Your task to perform on an android device: change the clock display to digital Image 0: 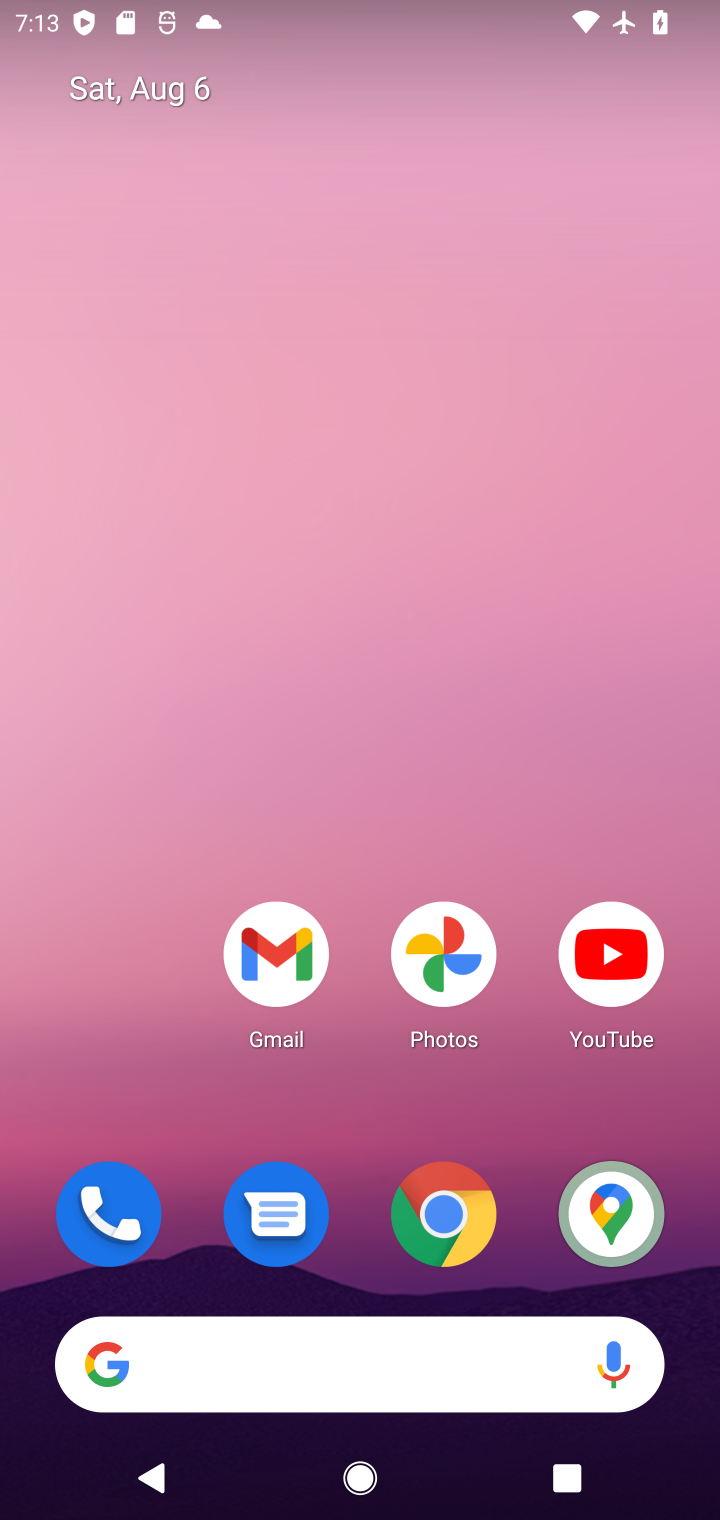
Step 0: drag from (374, 1093) to (388, 0)
Your task to perform on an android device: change the clock display to digital Image 1: 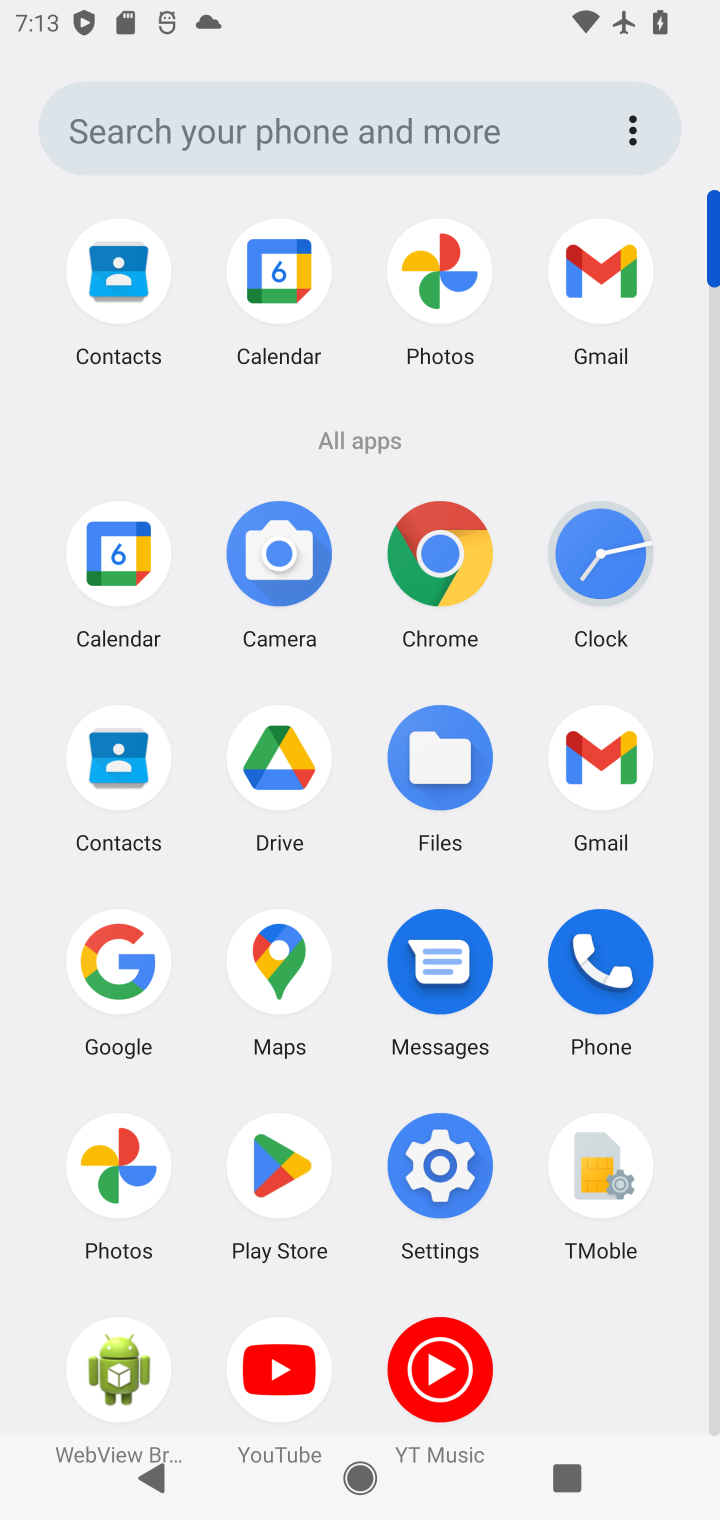
Step 1: click (626, 550)
Your task to perform on an android device: change the clock display to digital Image 2: 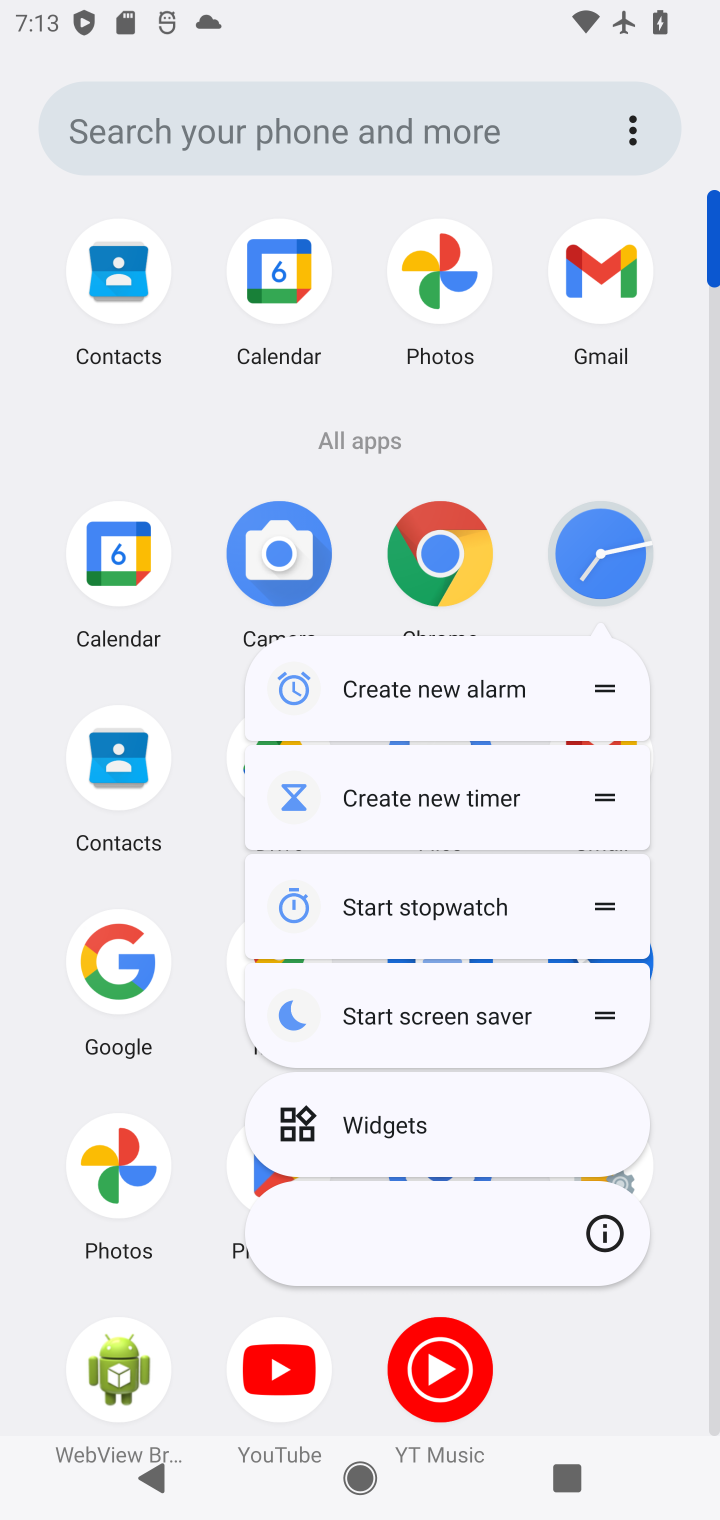
Step 2: click (618, 563)
Your task to perform on an android device: change the clock display to digital Image 3: 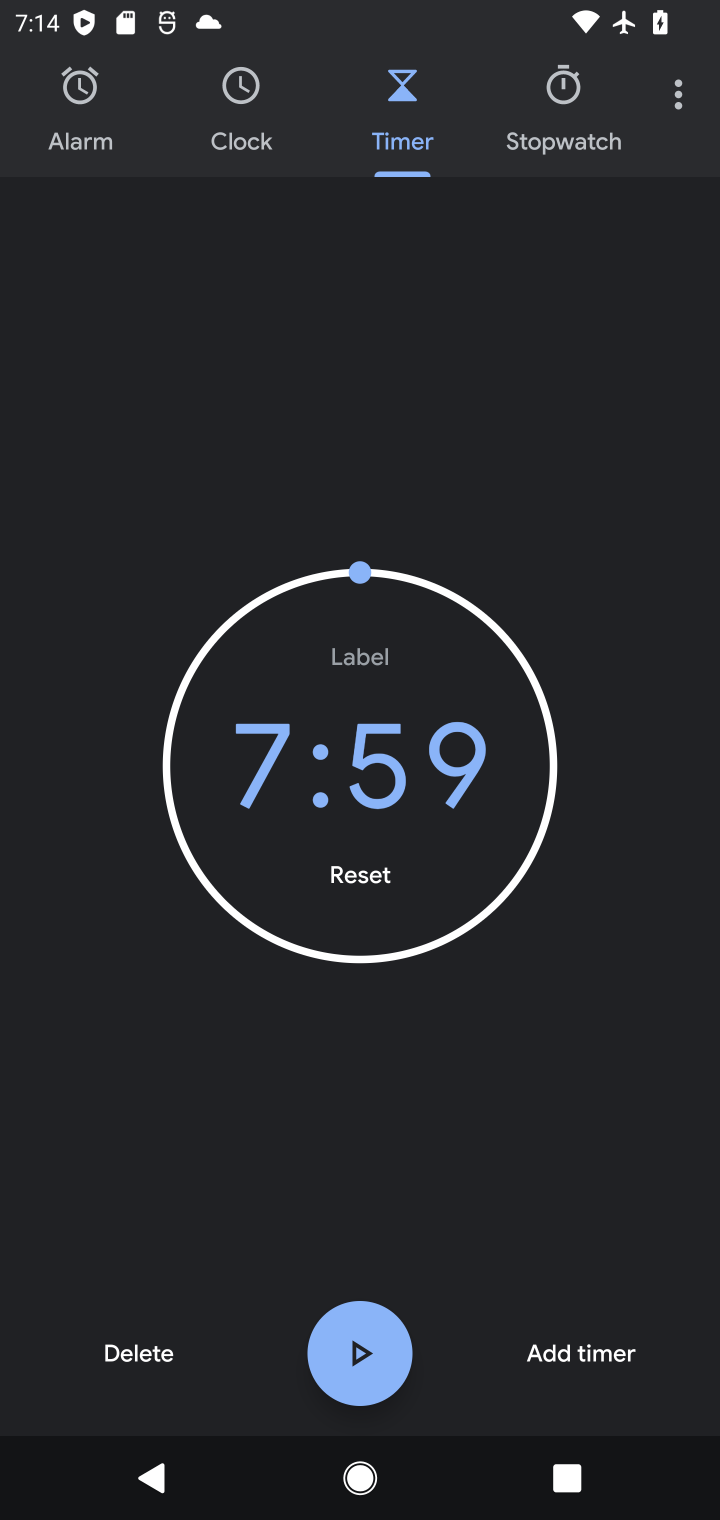
Step 3: click (671, 93)
Your task to perform on an android device: change the clock display to digital Image 4: 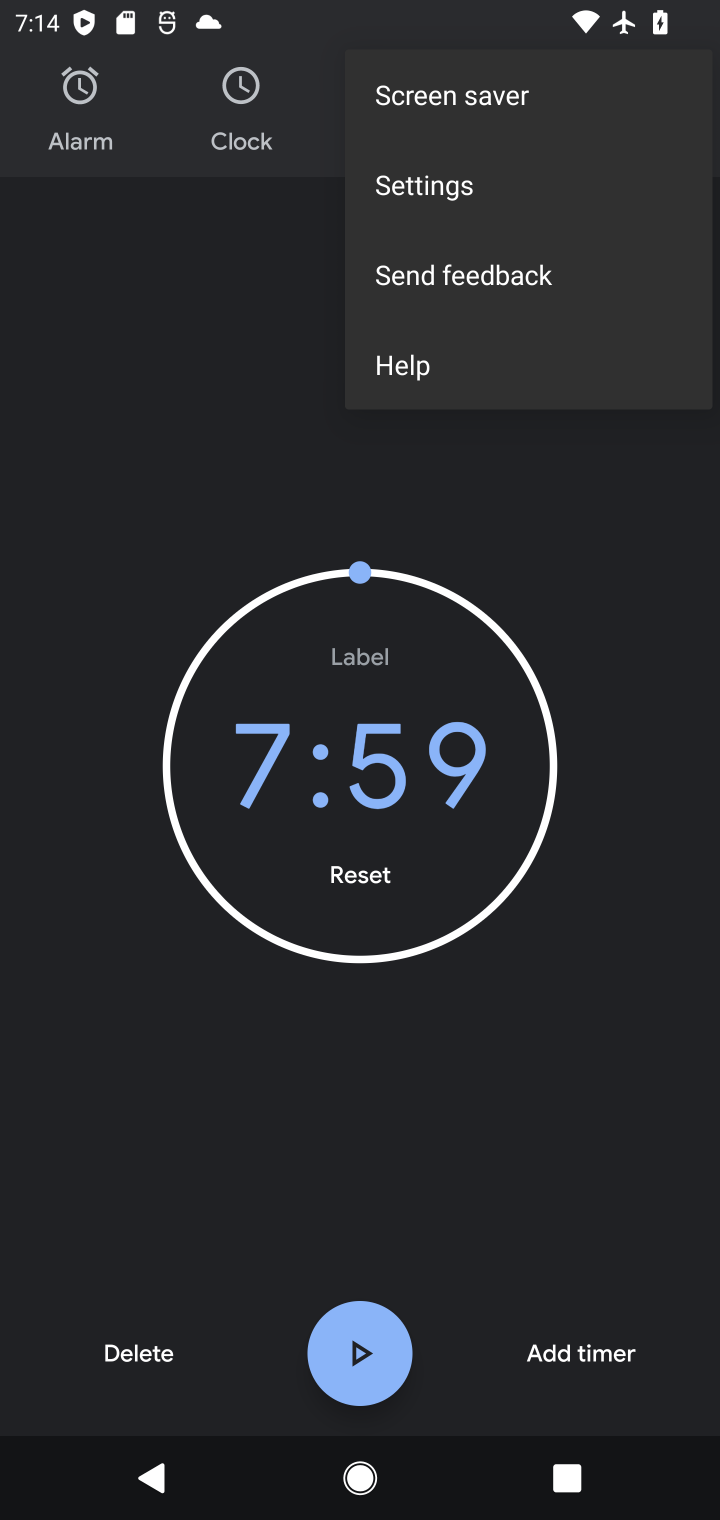
Step 4: click (422, 197)
Your task to perform on an android device: change the clock display to digital Image 5: 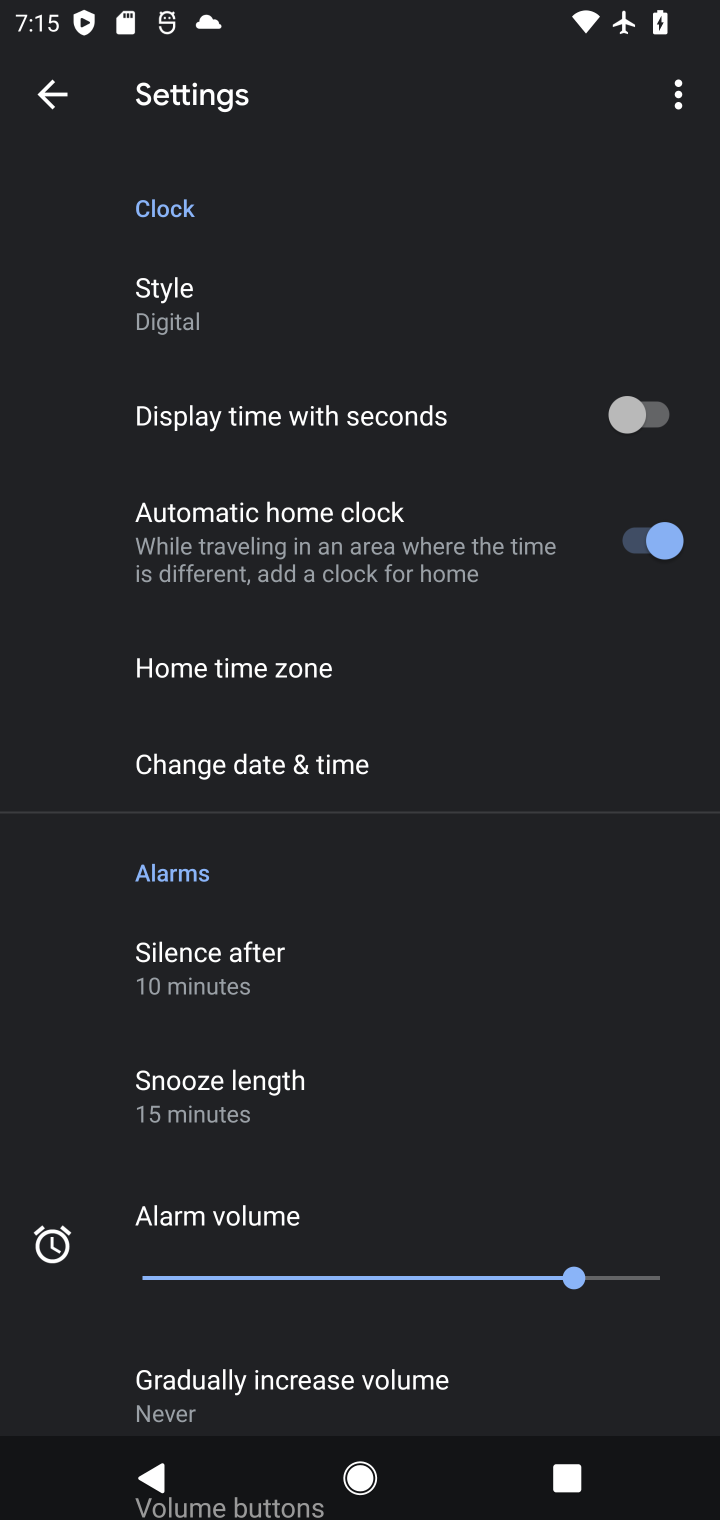
Step 5: click (194, 313)
Your task to perform on an android device: change the clock display to digital Image 6: 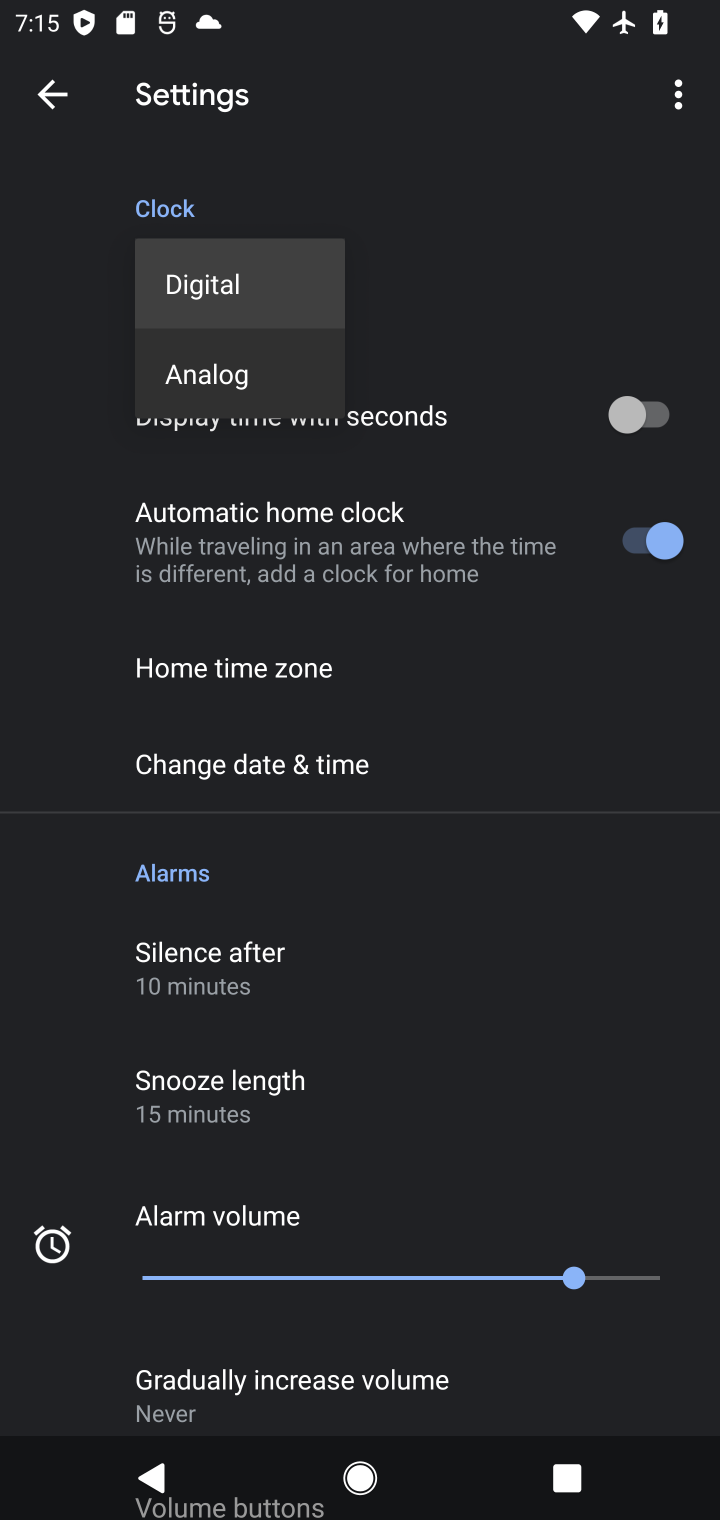
Step 6: task complete